Your task to perform on an android device: remove spam from my inbox in the gmail app Image 0: 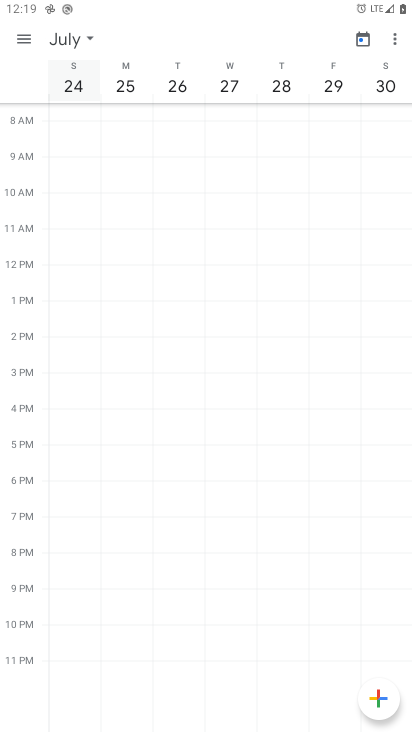
Step 0: press home button
Your task to perform on an android device: remove spam from my inbox in the gmail app Image 1: 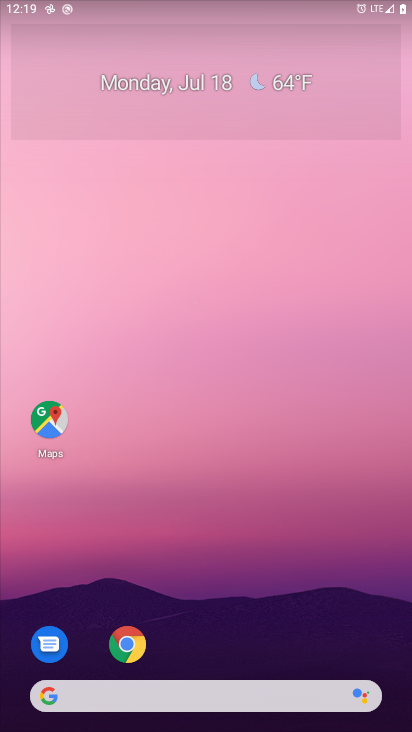
Step 1: drag from (306, 631) to (309, 137)
Your task to perform on an android device: remove spam from my inbox in the gmail app Image 2: 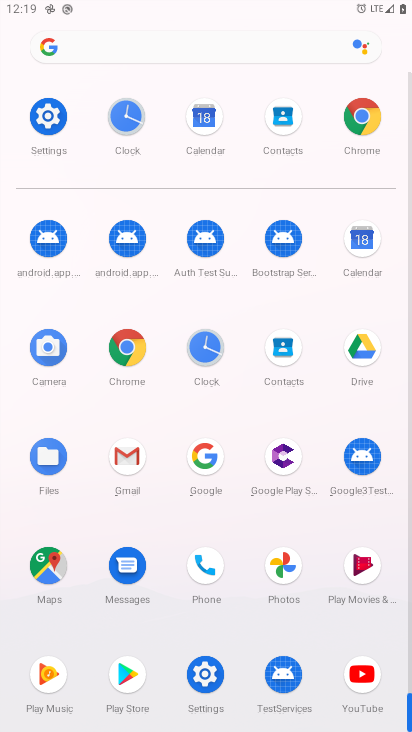
Step 2: click (132, 452)
Your task to perform on an android device: remove spam from my inbox in the gmail app Image 3: 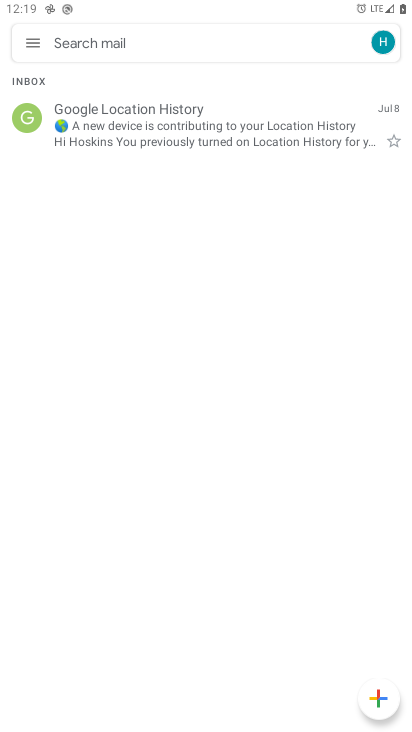
Step 3: click (29, 42)
Your task to perform on an android device: remove spam from my inbox in the gmail app Image 4: 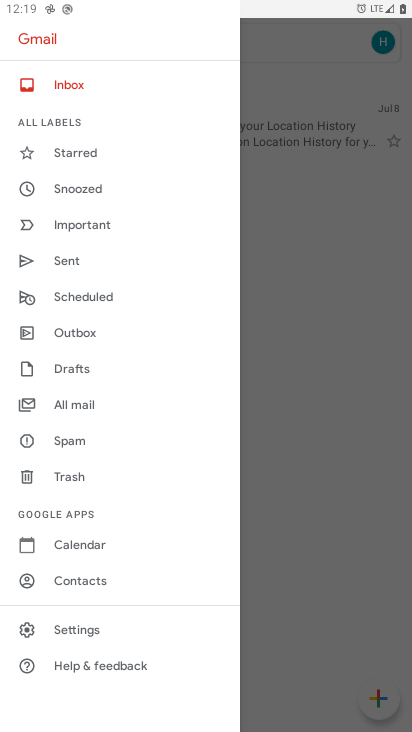
Step 4: click (49, 431)
Your task to perform on an android device: remove spam from my inbox in the gmail app Image 5: 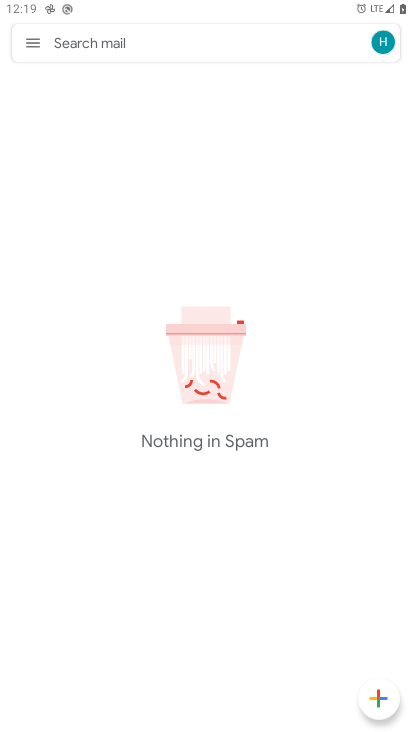
Step 5: task complete